Your task to perform on an android device: find which apps use the phone's location Image 0: 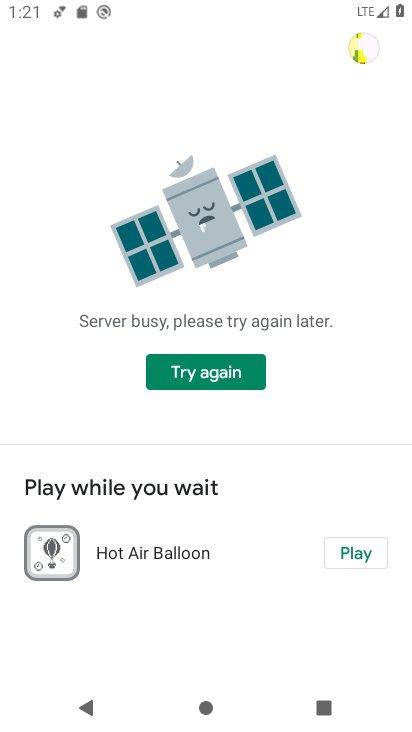
Step 0: press home button
Your task to perform on an android device: find which apps use the phone's location Image 1: 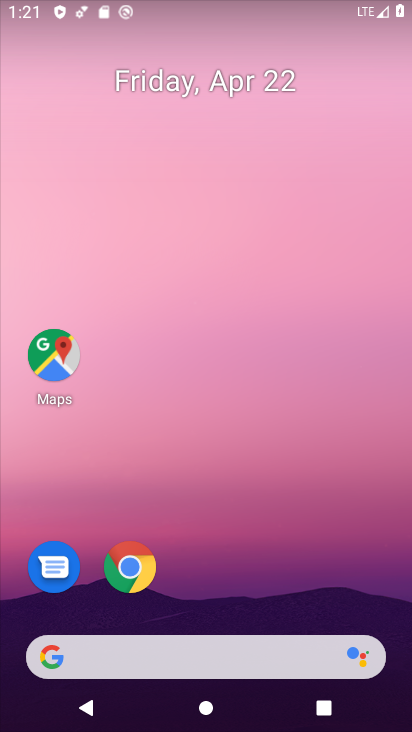
Step 1: drag from (365, 610) to (277, 87)
Your task to perform on an android device: find which apps use the phone's location Image 2: 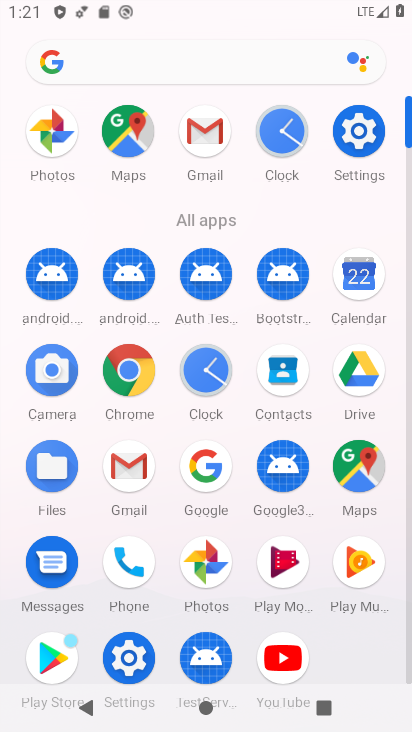
Step 2: click (127, 655)
Your task to perform on an android device: find which apps use the phone's location Image 3: 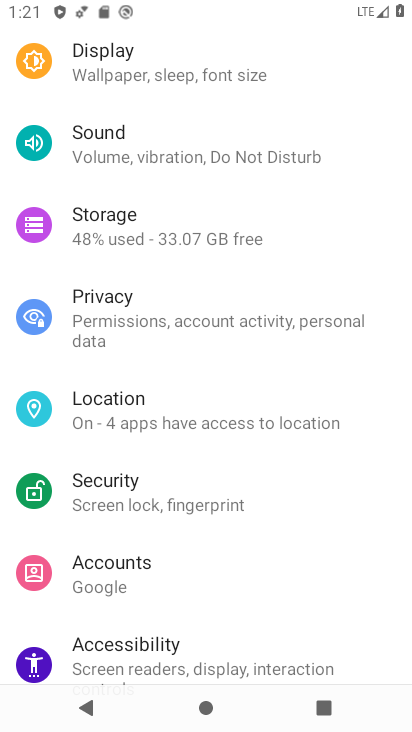
Step 3: click (129, 398)
Your task to perform on an android device: find which apps use the phone's location Image 4: 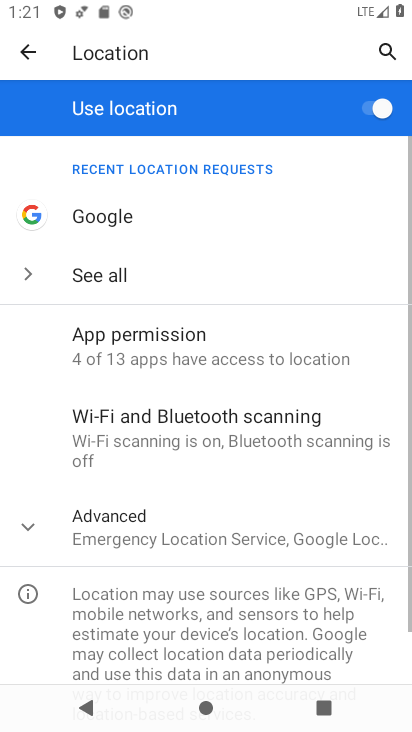
Step 4: click (111, 346)
Your task to perform on an android device: find which apps use the phone's location Image 5: 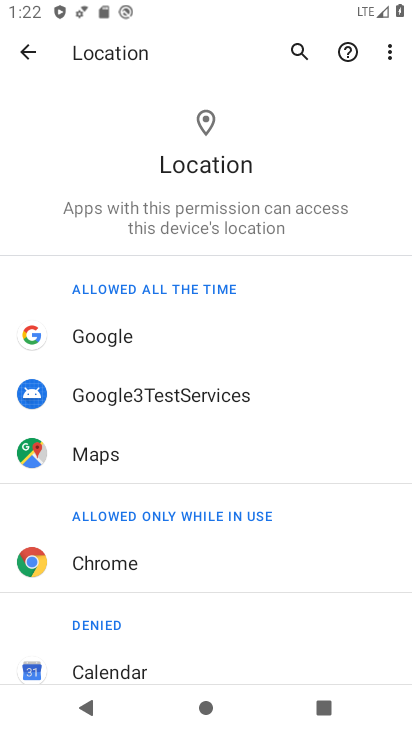
Step 5: drag from (269, 529) to (238, 186)
Your task to perform on an android device: find which apps use the phone's location Image 6: 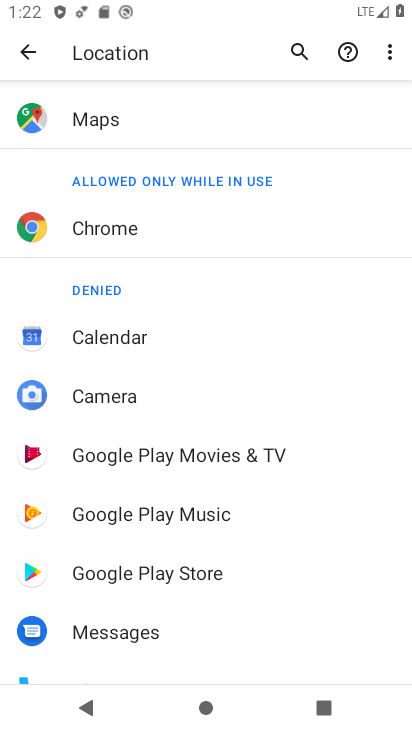
Step 6: drag from (139, 611) to (161, 210)
Your task to perform on an android device: find which apps use the phone's location Image 7: 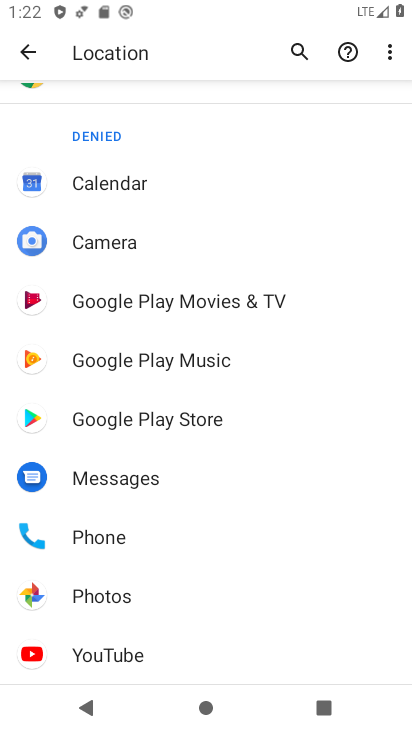
Step 7: click (90, 529)
Your task to perform on an android device: find which apps use the phone's location Image 8: 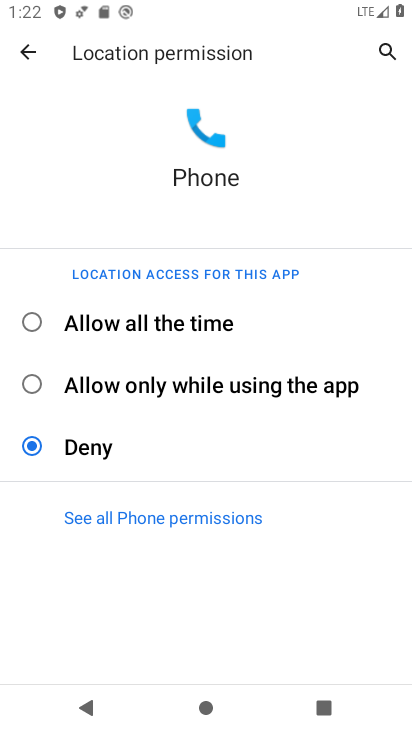
Step 8: task complete